Your task to perform on an android device: turn off location Image 0: 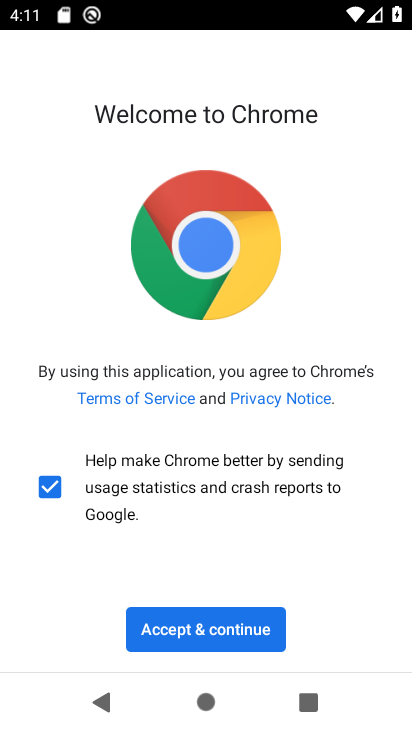
Step 0: press home button
Your task to perform on an android device: turn off location Image 1: 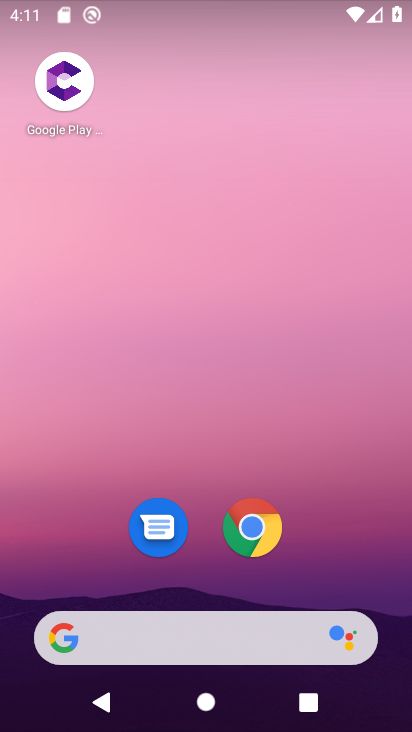
Step 1: drag from (286, 580) to (406, 109)
Your task to perform on an android device: turn off location Image 2: 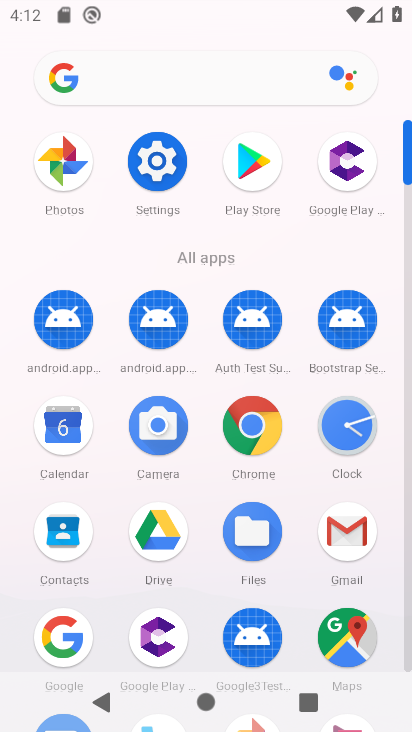
Step 2: click (152, 163)
Your task to perform on an android device: turn off location Image 3: 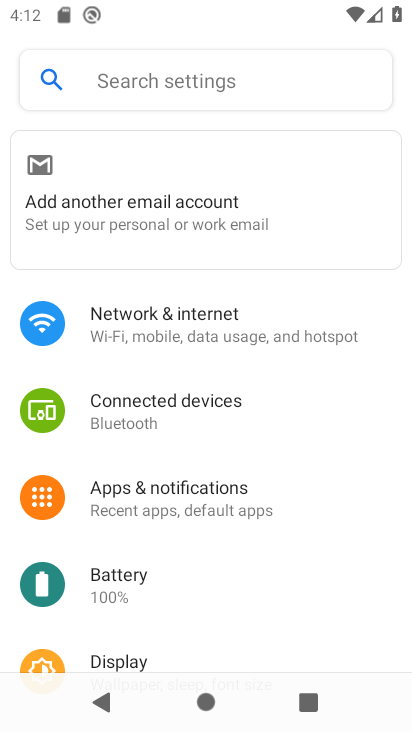
Step 3: drag from (243, 534) to (246, 390)
Your task to perform on an android device: turn off location Image 4: 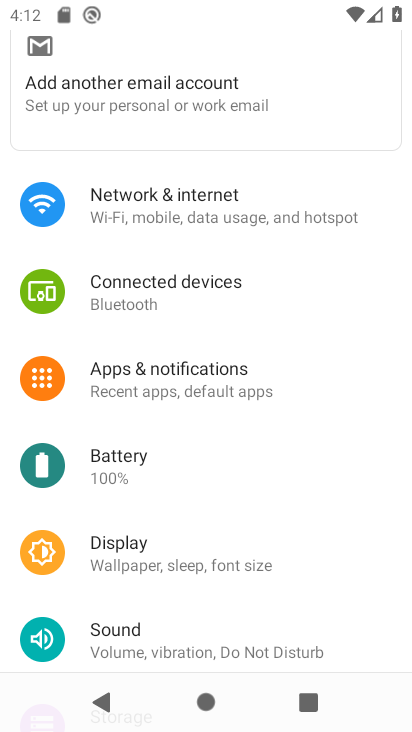
Step 4: drag from (159, 663) to (251, 274)
Your task to perform on an android device: turn off location Image 5: 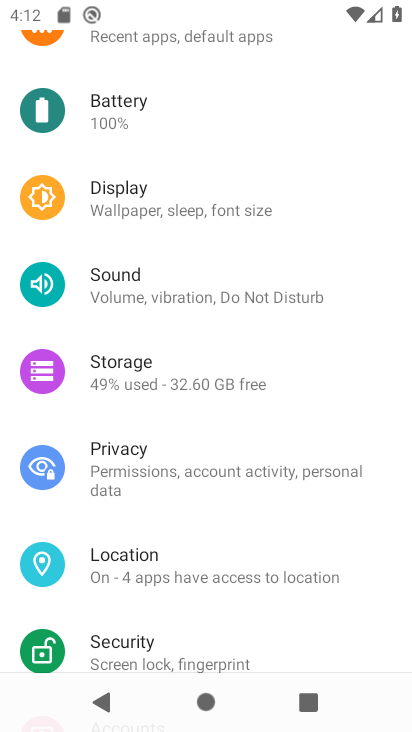
Step 5: click (232, 569)
Your task to perform on an android device: turn off location Image 6: 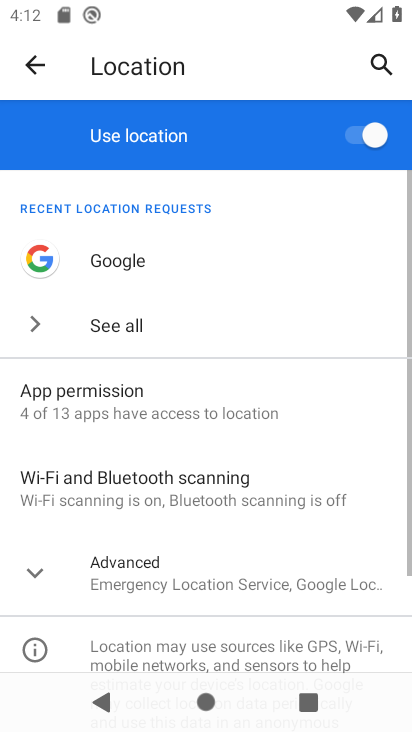
Step 6: drag from (239, 581) to (268, 156)
Your task to perform on an android device: turn off location Image 7: 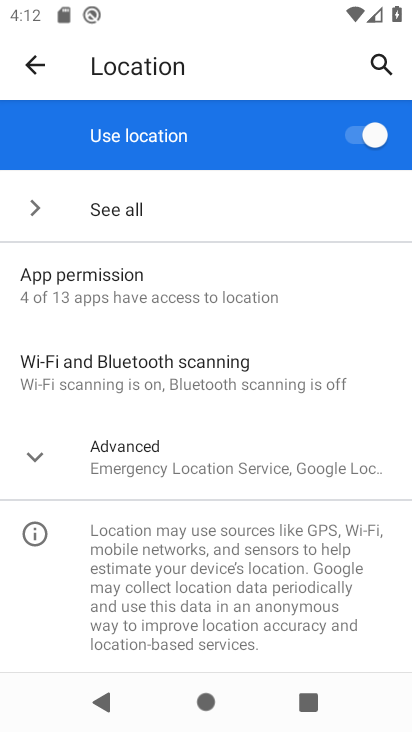
Step 7: click (344, 109)
Your task to perform on an android device: turn off location Image 8: 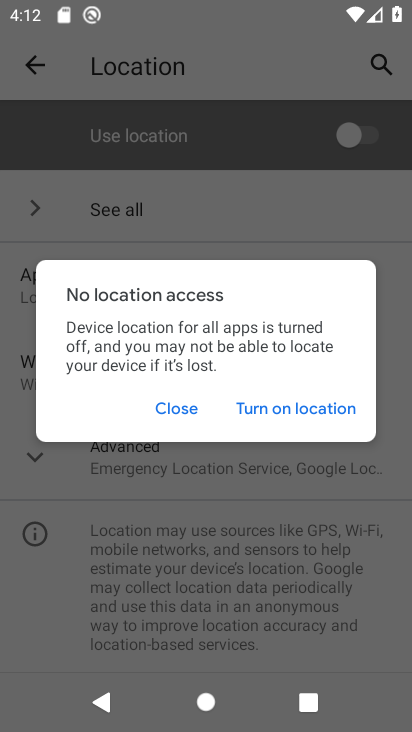
Step 8: task complete